Your task to perform on an android device: set the timer Image 0: 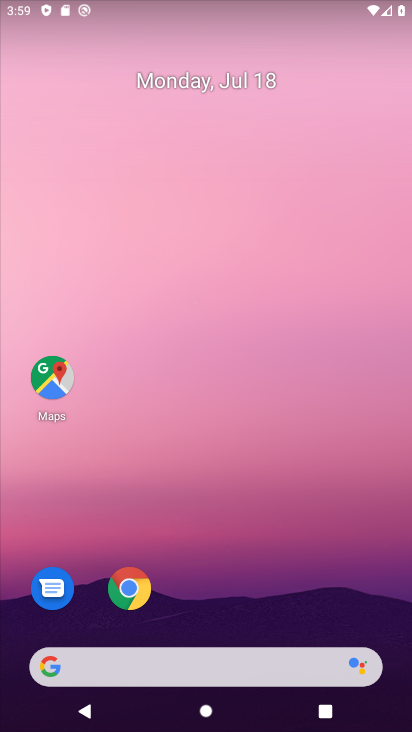
Step 0: drag from (27, 717) to (374, 106)
Your task to perform on an android device: set the timer Image 1: 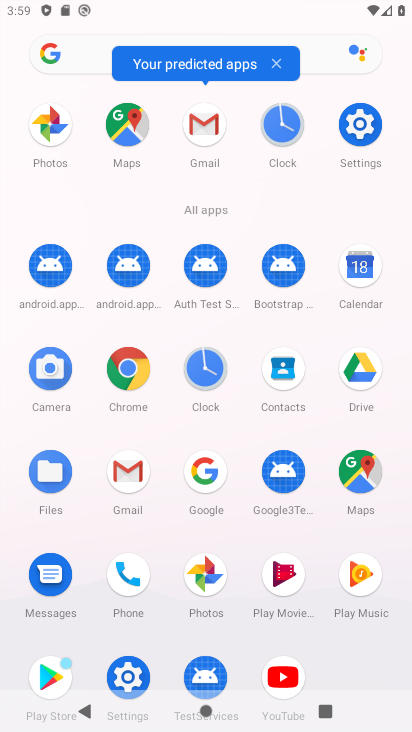
Step 1: click (185, 352)
Your task to perform on an android device: set the timer Image 2: 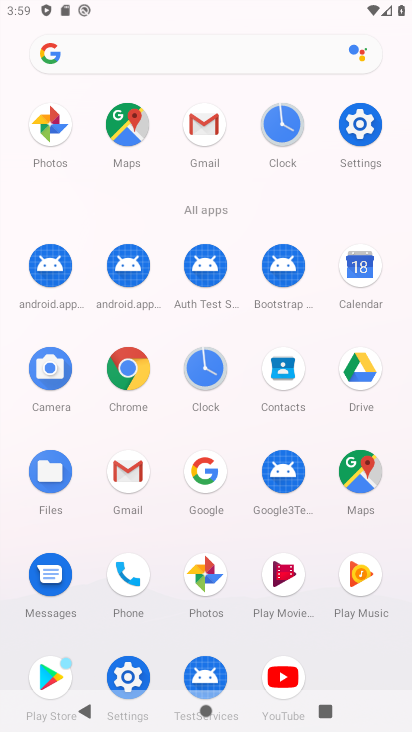
Step 2: click (195, 376)
Your task to perform on an android device: set the timer Image 3: 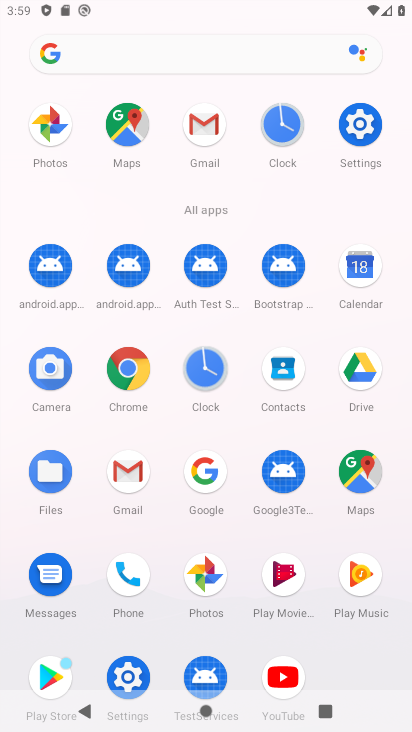
Step 3: click (201, 378)
Your task to perform on an android device: set the timer Image 4: 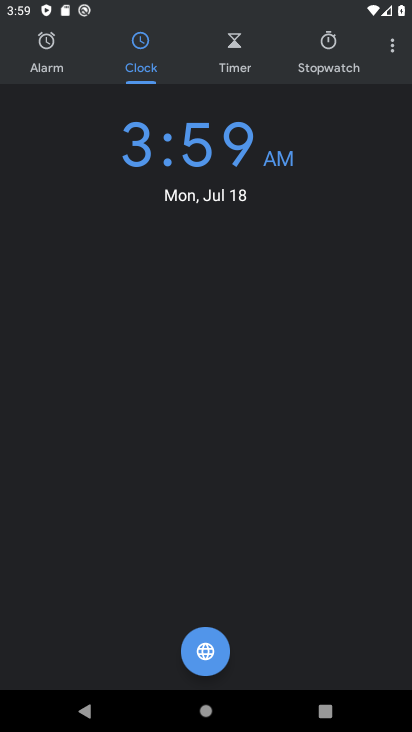
Step 4: click (224, 52)
Your task to perform on an android device: set the timer Image 5: 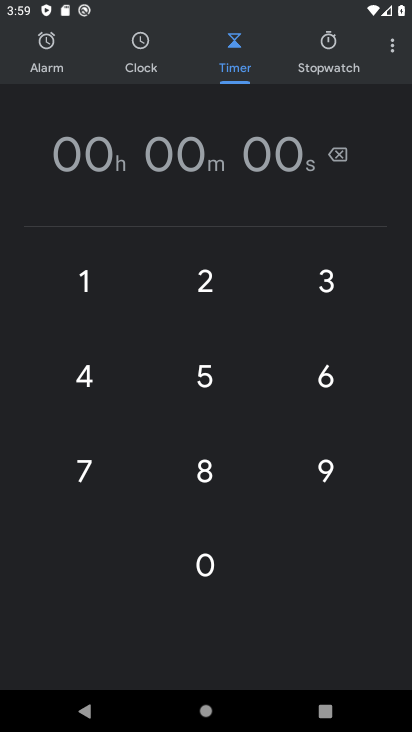
Step 5: click (196, 362)
Your task to perform on an android device: set the timer Image 6: 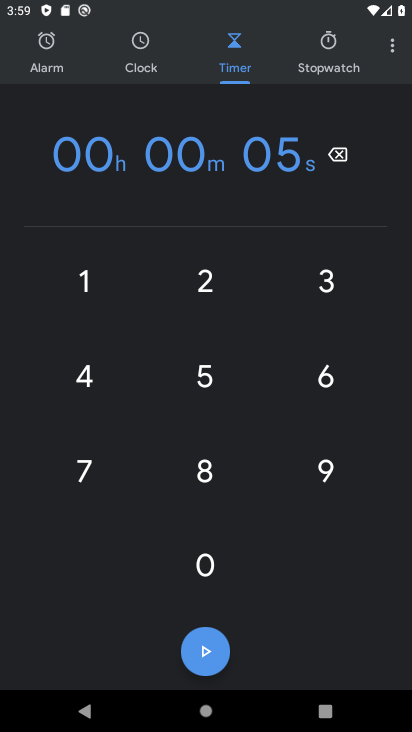
Step 6: click (209, 659)
Your task to perform on an android device: set the timer Image 7: 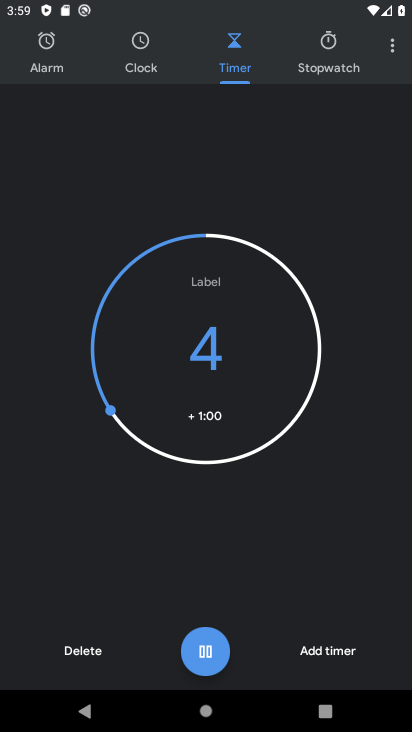
Step 7: click (204, 641)
Your task to perform on an android device: set the timer Image 8: 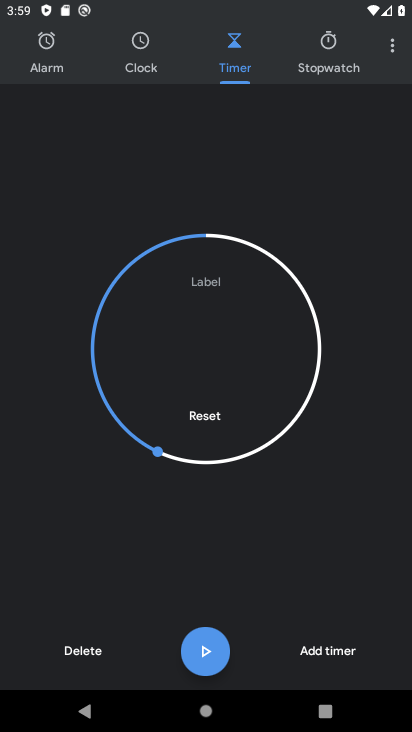
Step 8: task complete